Your task to perform on an android device: Search for "custom wallet" on Etsy. Image 0: 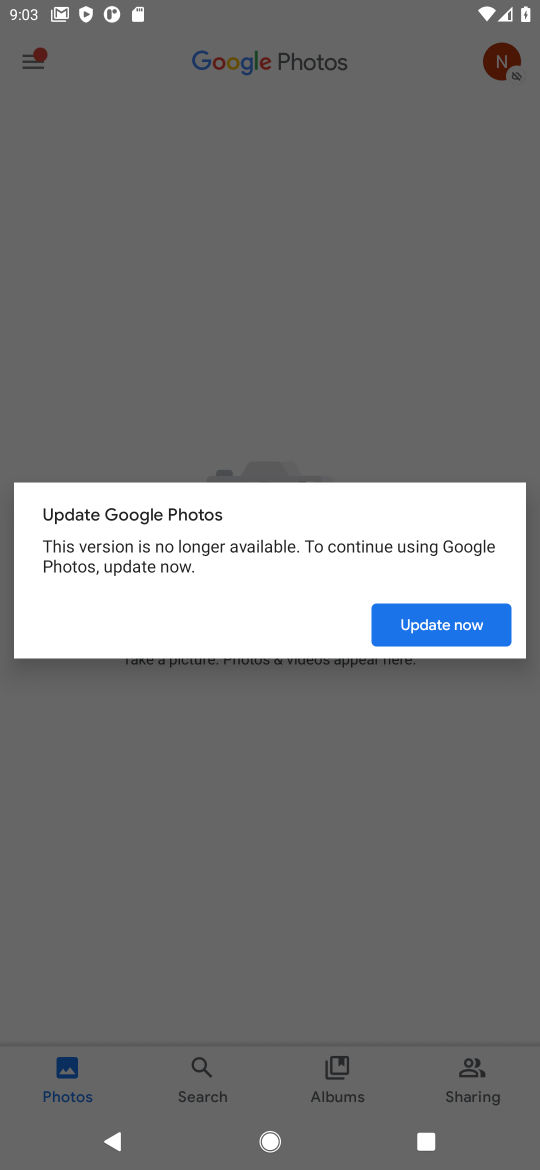
Step 0: press home button
Your task to perform on an android device: Search for "custom wallet" on Etsy. Image 1: 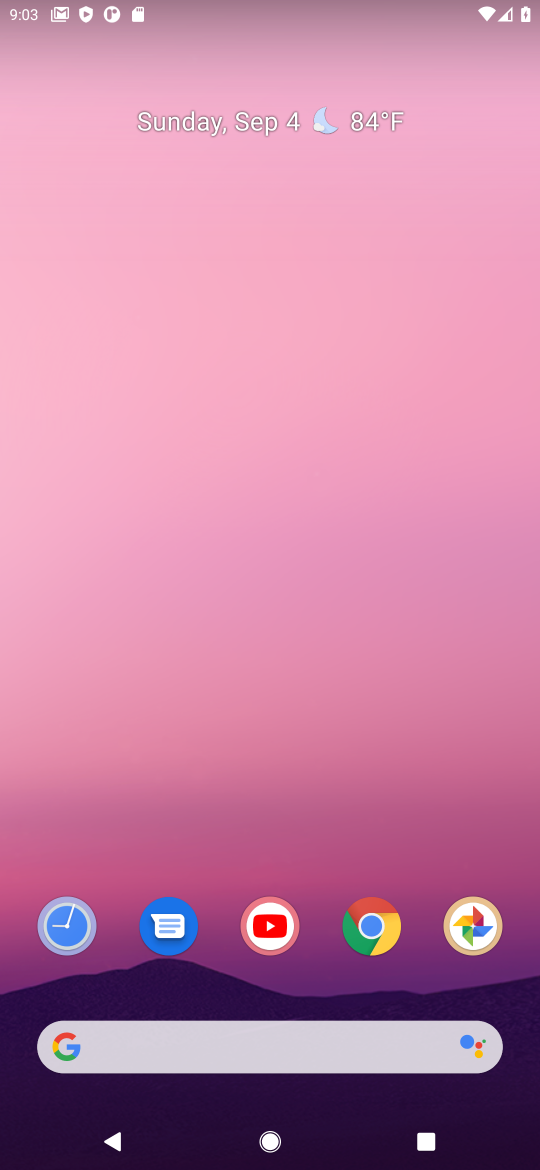
Step 1: click (256, 1045)
Your task to perform on an android device: Search for "custom wallet" on Etsy. Image 2: 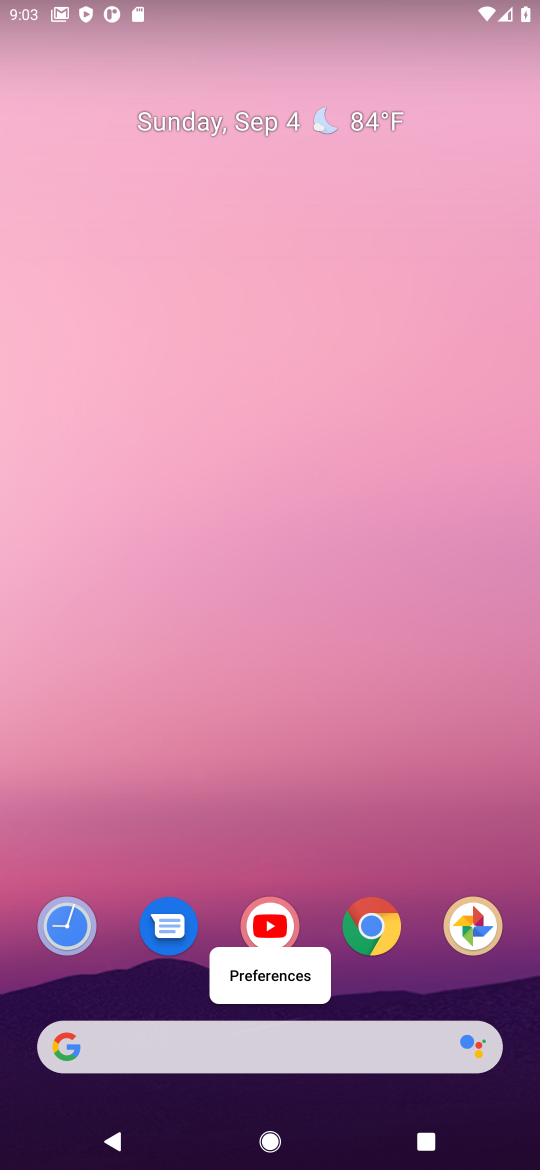
Step 2: click (88, 1047)
Your task to perform on an android device: Search for "custom wallet" on Etsy. Image 3: 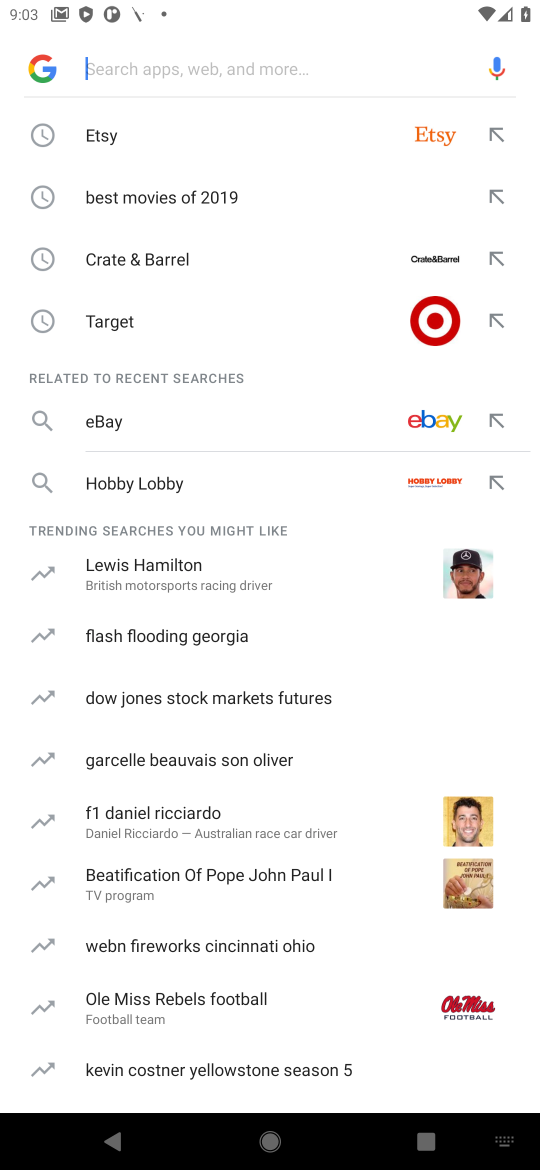
Step 3: click (107, 131)
Your task to perform on an android device: Search for "custom wallet" on Etsy. Image 4: 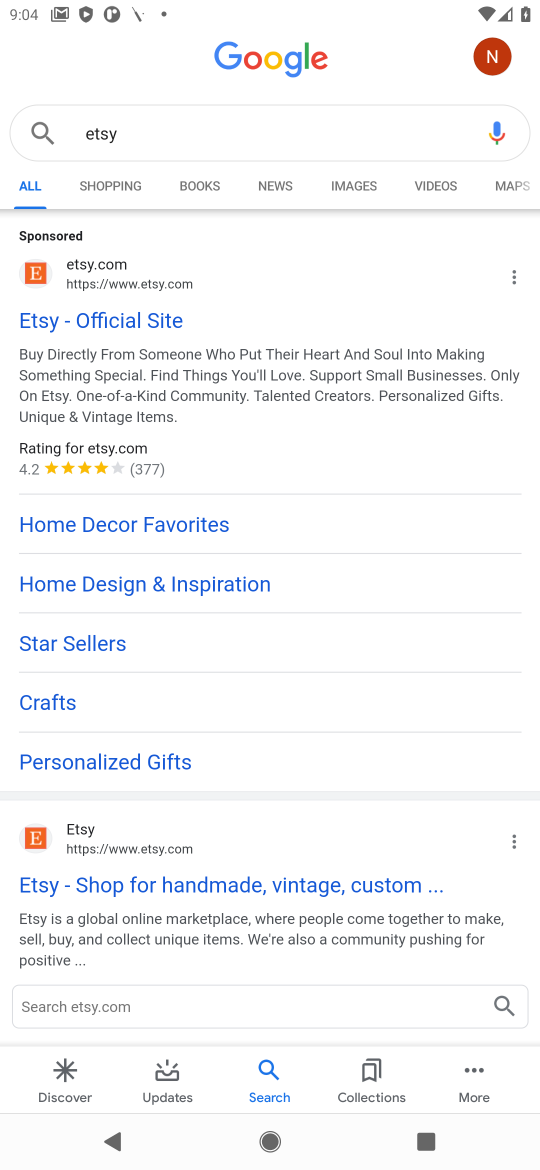
Step 4: click (58, 314)
Your task to perform on an android device: Search for "custom wallet" on Etsy. Image 5: 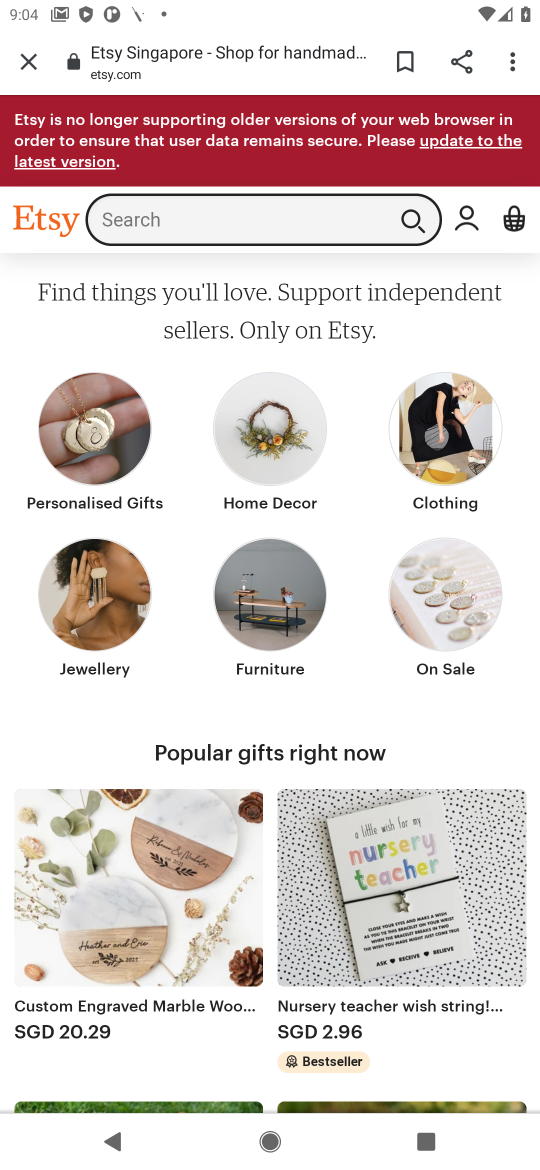
Step 5: click (283, 210)
Your task to perform on an android device: Search for "custom wallet" on Etsy. Image 6: 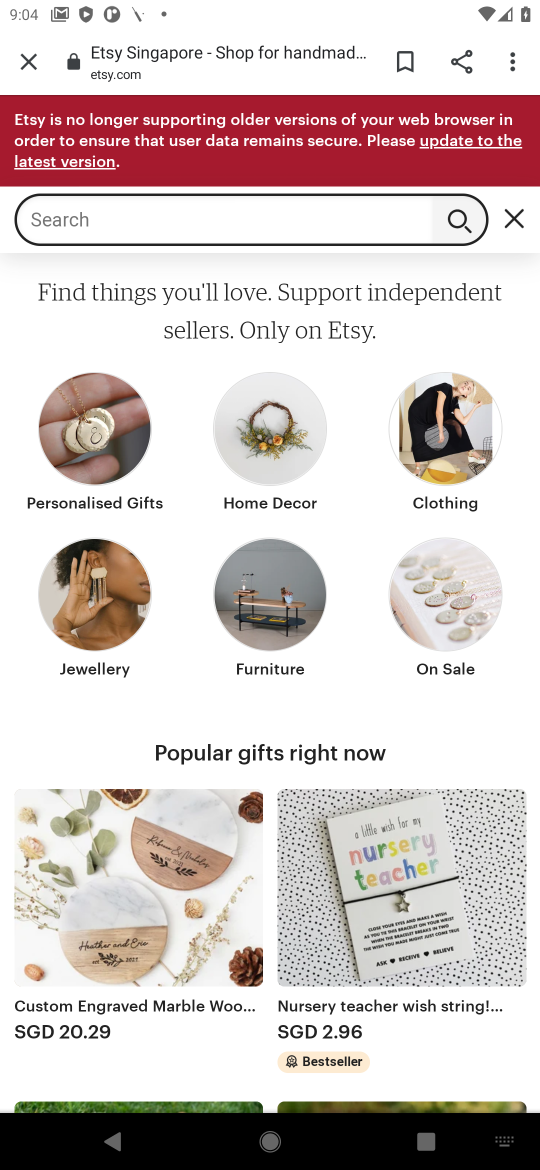
Step 6: type "custom wallet"
Your task to perform on an android device: Search for "custom wallet" on Etsy. Image 7: 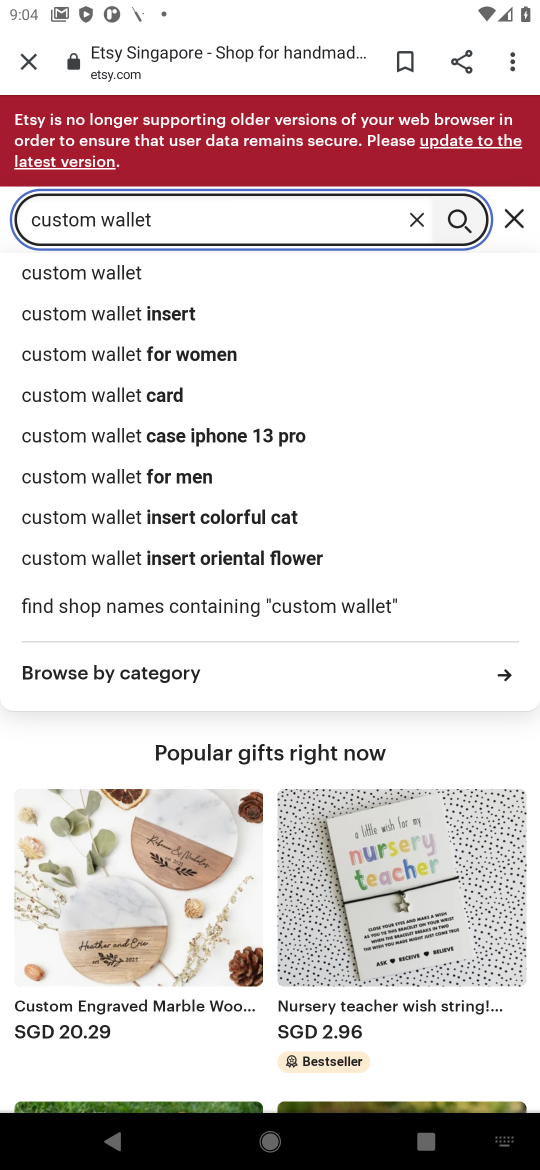
Step 7: click (460, 211)
Your task to perform on an android device: Search for "custom wallet" on Etsy. Image 8: 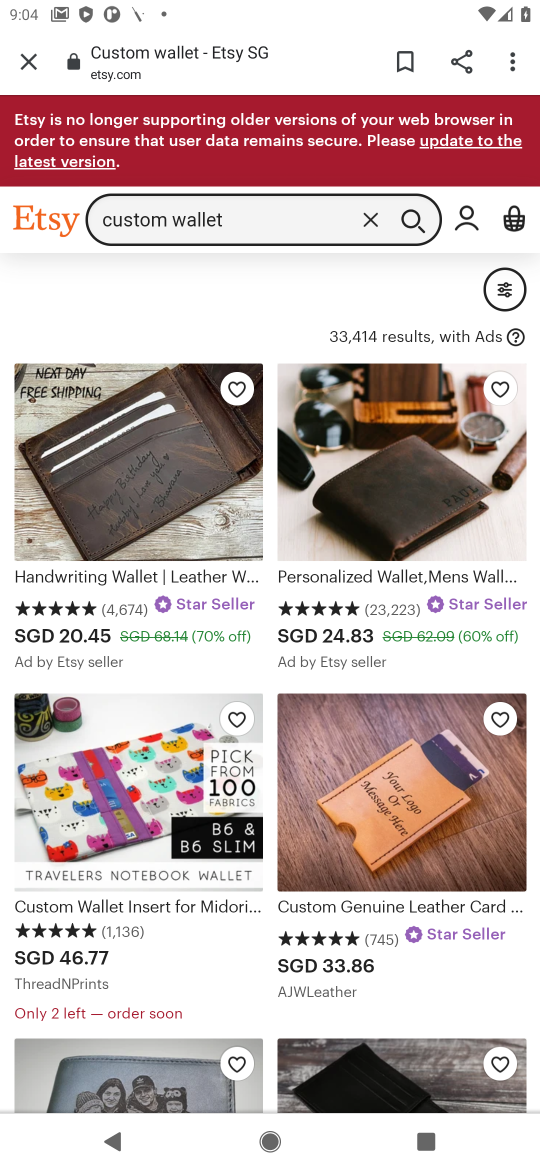
Step 8: task complete